Your task to perform on an android device: Search for vegetarian restaurants on Maps Image 0: 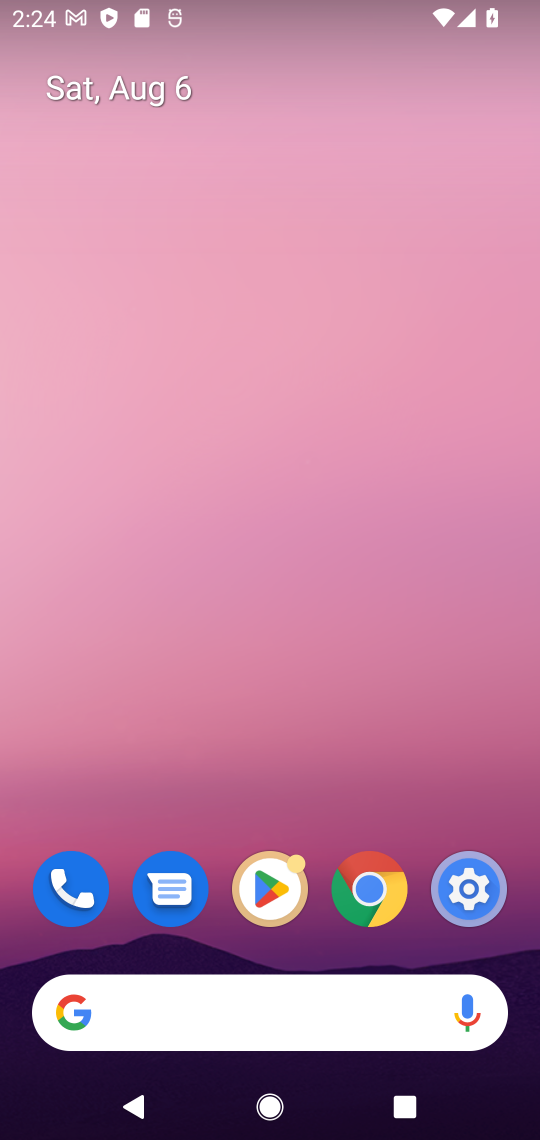
Step 0: drag from (315, 960) to (524, 163)
Your task to perform on an android device: Search for vegetarian restaurants on Maps Image 1: 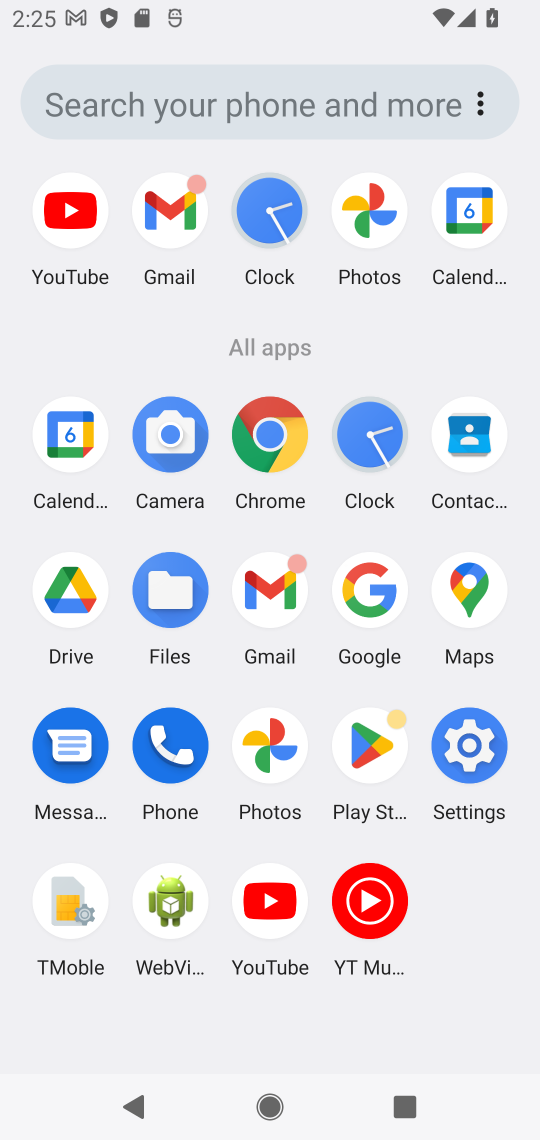
Step 1: click (465, 574)
Your task to perform on an android device: Search for vegetarian restaurants on Maps Image 2: 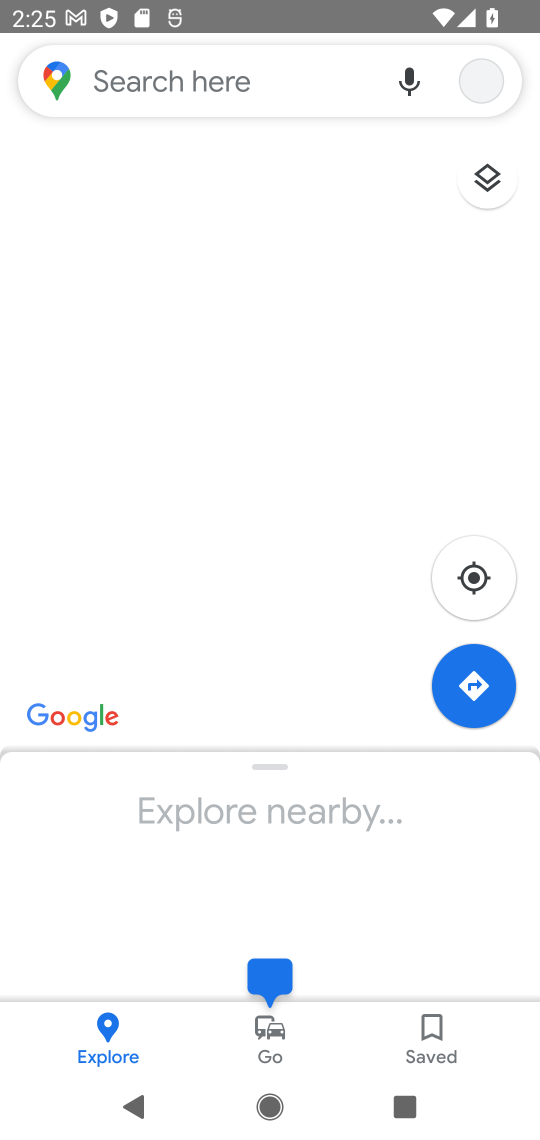
Step 2: click (236, 97)
Your task to perform on an android device: Search for vegetarian restaurants on Maps Image 3: 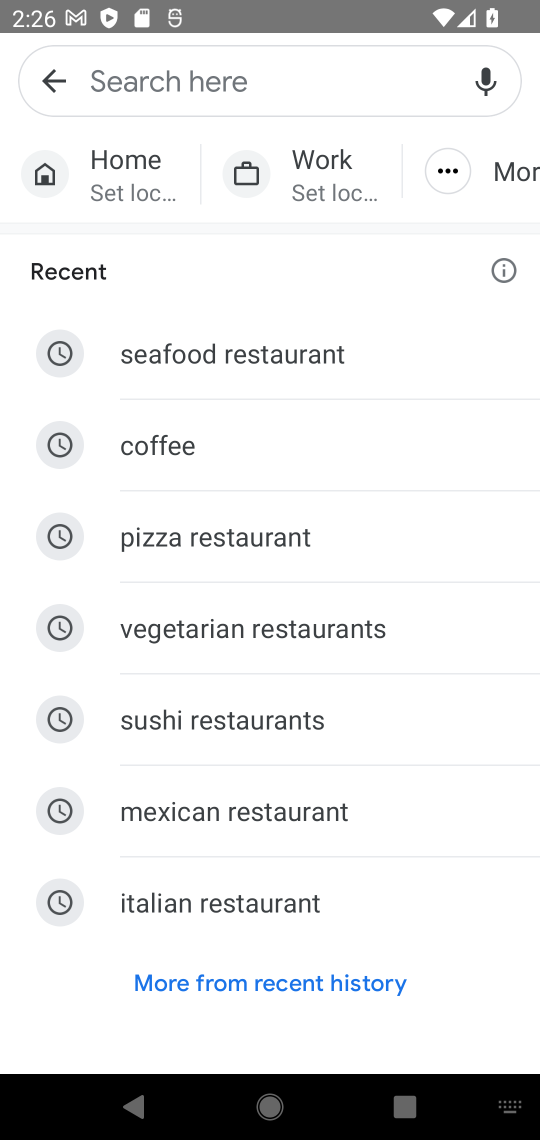
Step 3: drag from (208, 804) to (312, 377)
Your task to perform on an android device: Search for vegetarian restaurants on Maps Image 4: 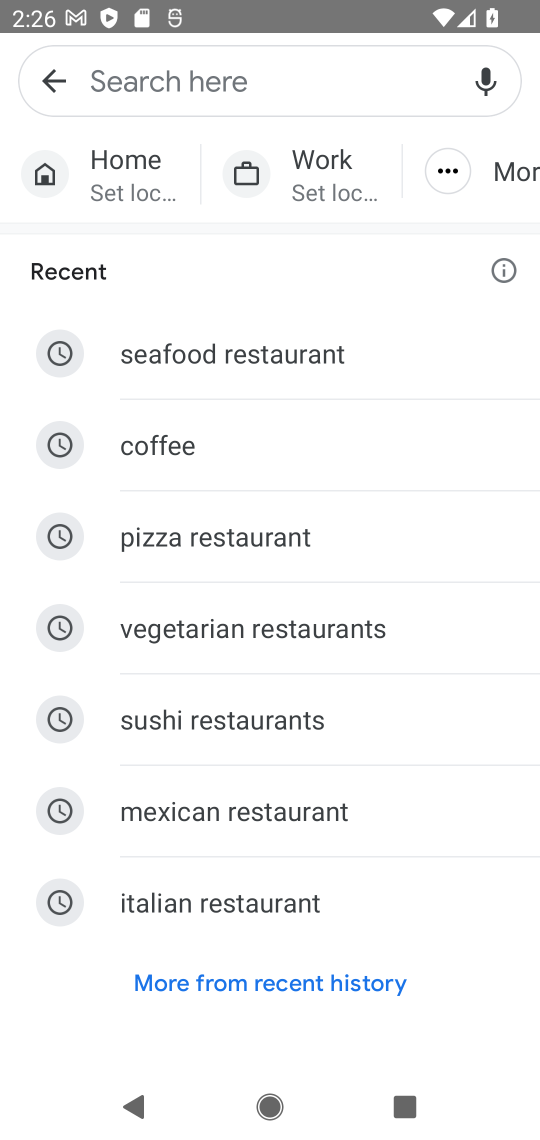
Step 4: drag from (222, 543) to (316, 1120)
Your task to perform on an android device: Search for vegetarian restaurants on Maps Image 5: 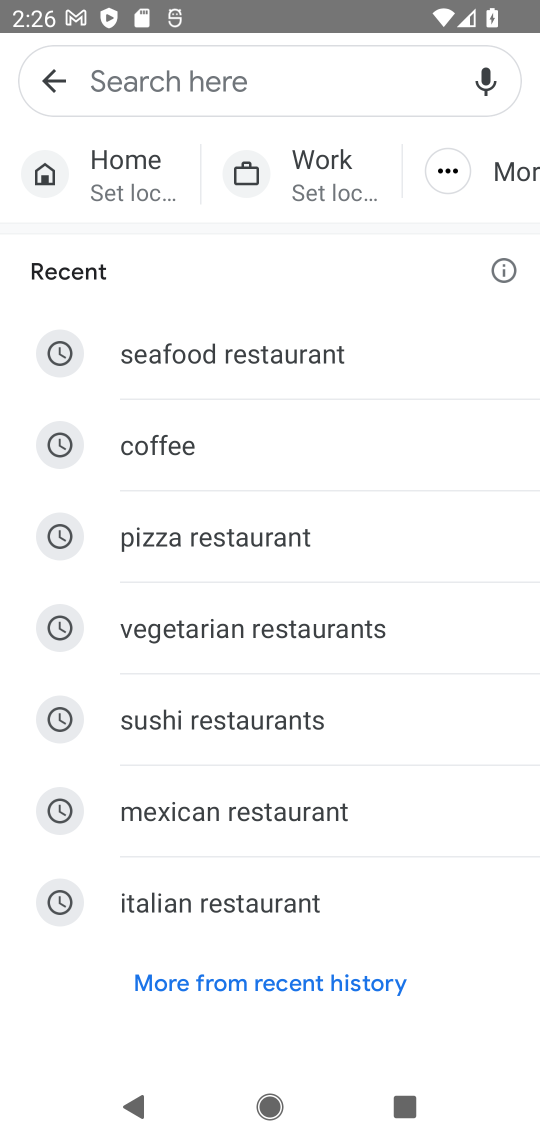
Step 5: click (163, 641)
Your task to perform on an android device: Search for vegetarian restaurants on Maps Image 6: 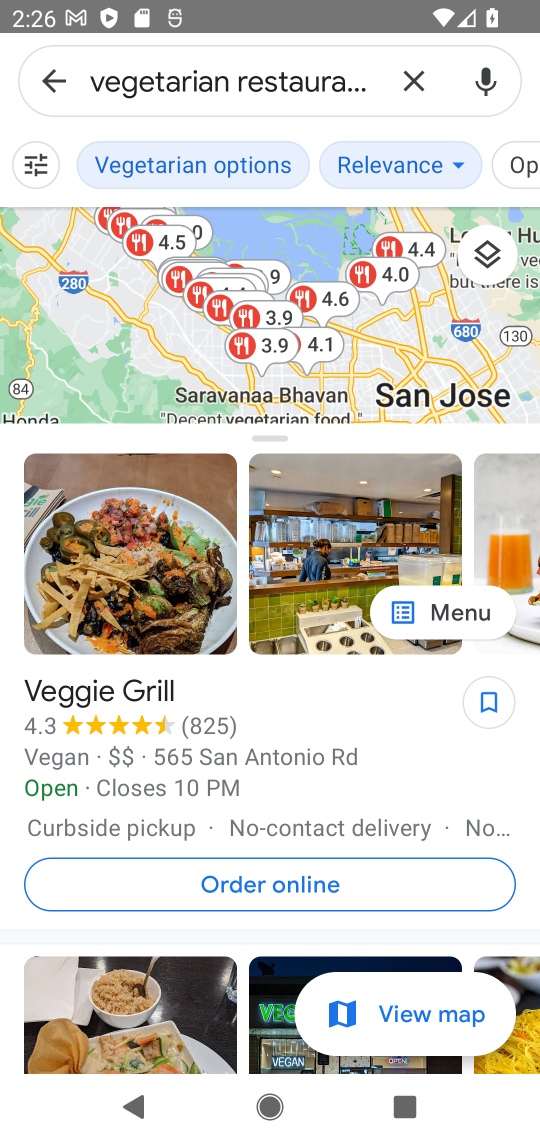
Step 6: task complete